Your task to perform on an android device: What's a good restaurant in Los Angeles? Image 0: 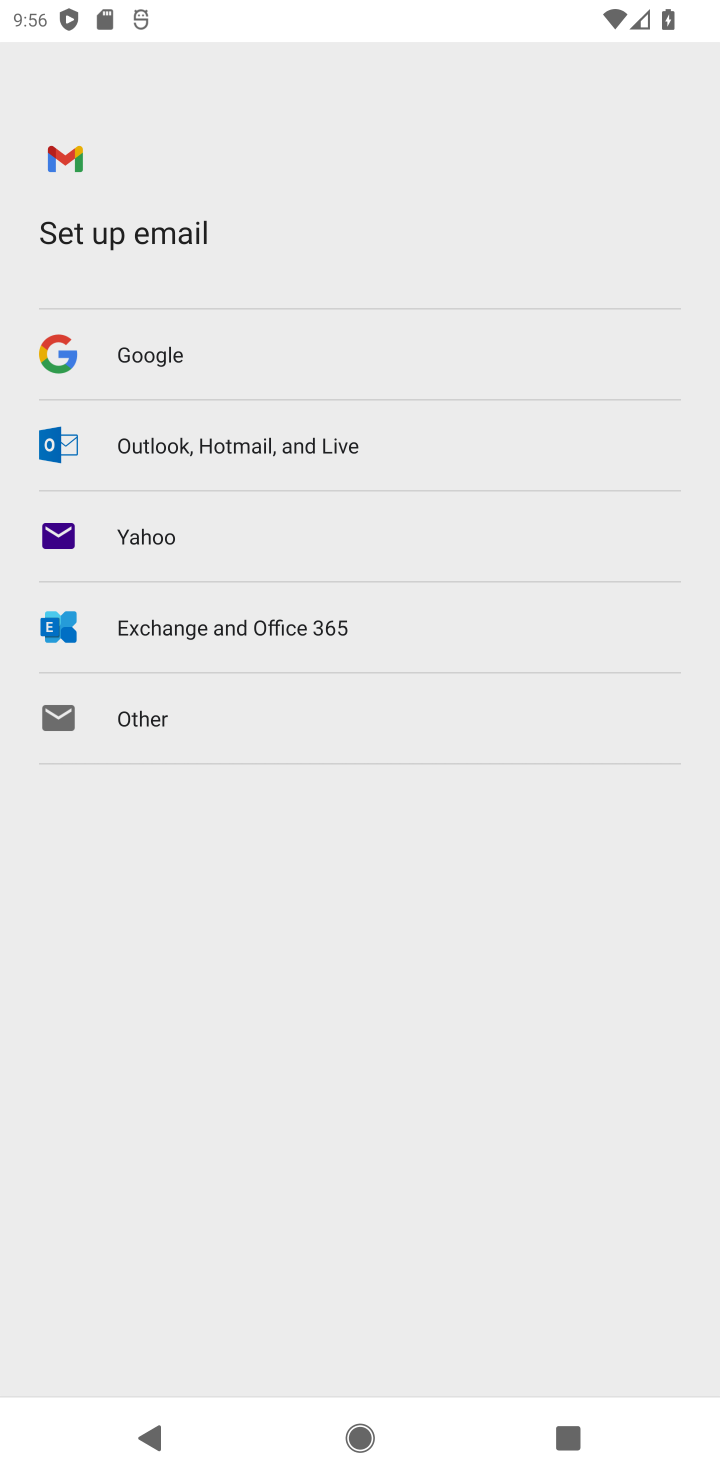
Step 0: press home button
Your task to perform on an android device: What's a good restaurant in Los Angeles? Image 1: 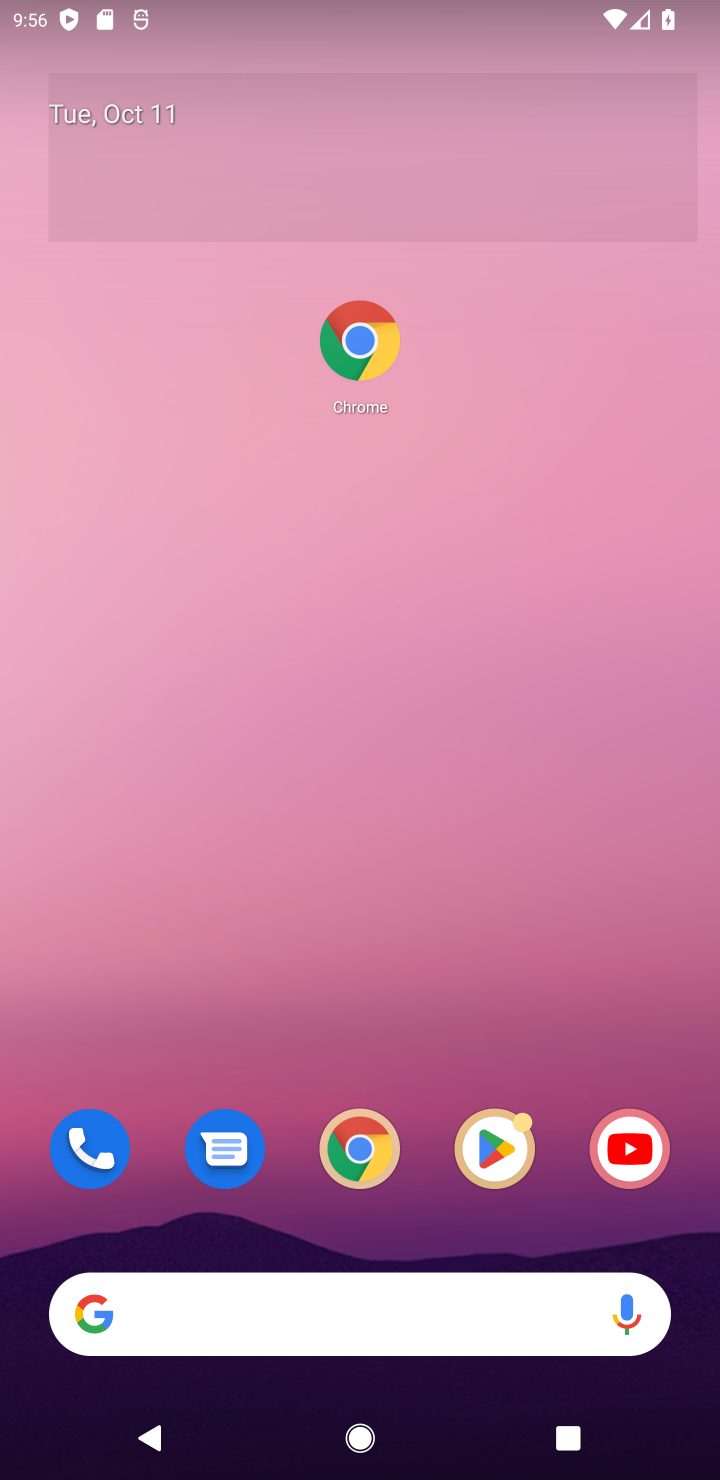
Step 1: drag from (423, 1070) to (387, 330)
Your task to perform on an android device: What's a good restaurant in Los Angeles? Image 2: 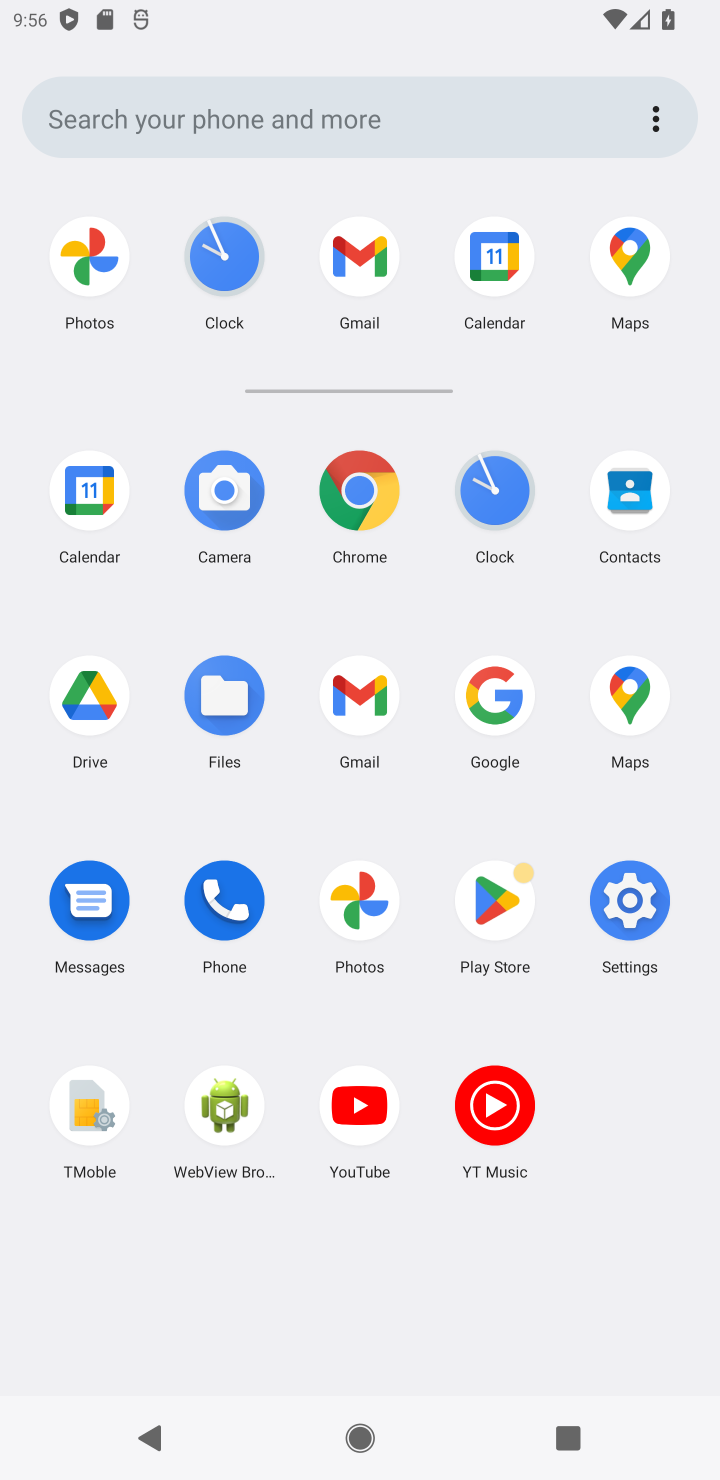
Step 2: click (369, 496)
Your task to perform on an android device: What's a good restaurant in Los Angeles? Image 3: 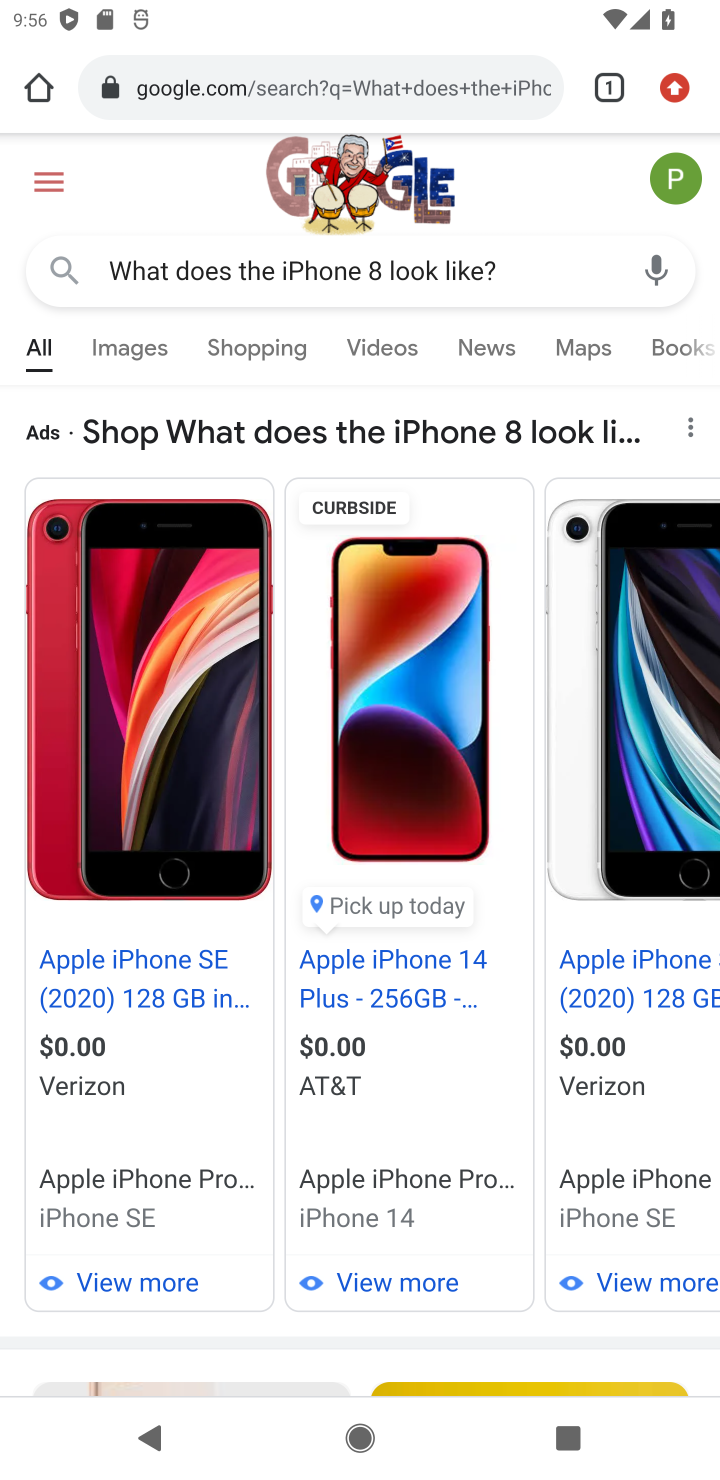
Step 3: click (521, 78)
Your task to perform on an android device: What's a good restaurant in Los Angeles? Image 4: 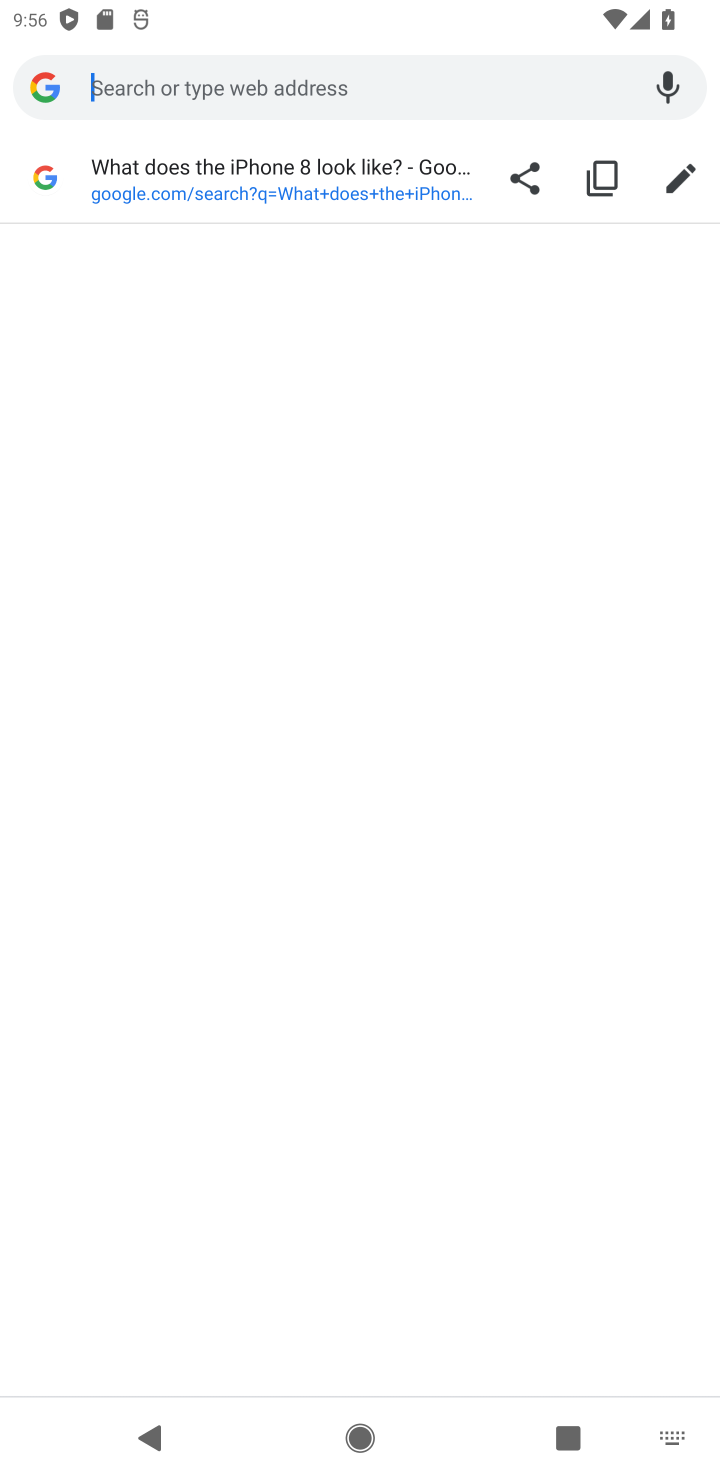
Step 4: click (521, 83)
Your task to perform on an android device: What's a good restaurant in Los Angeles? Image 5: 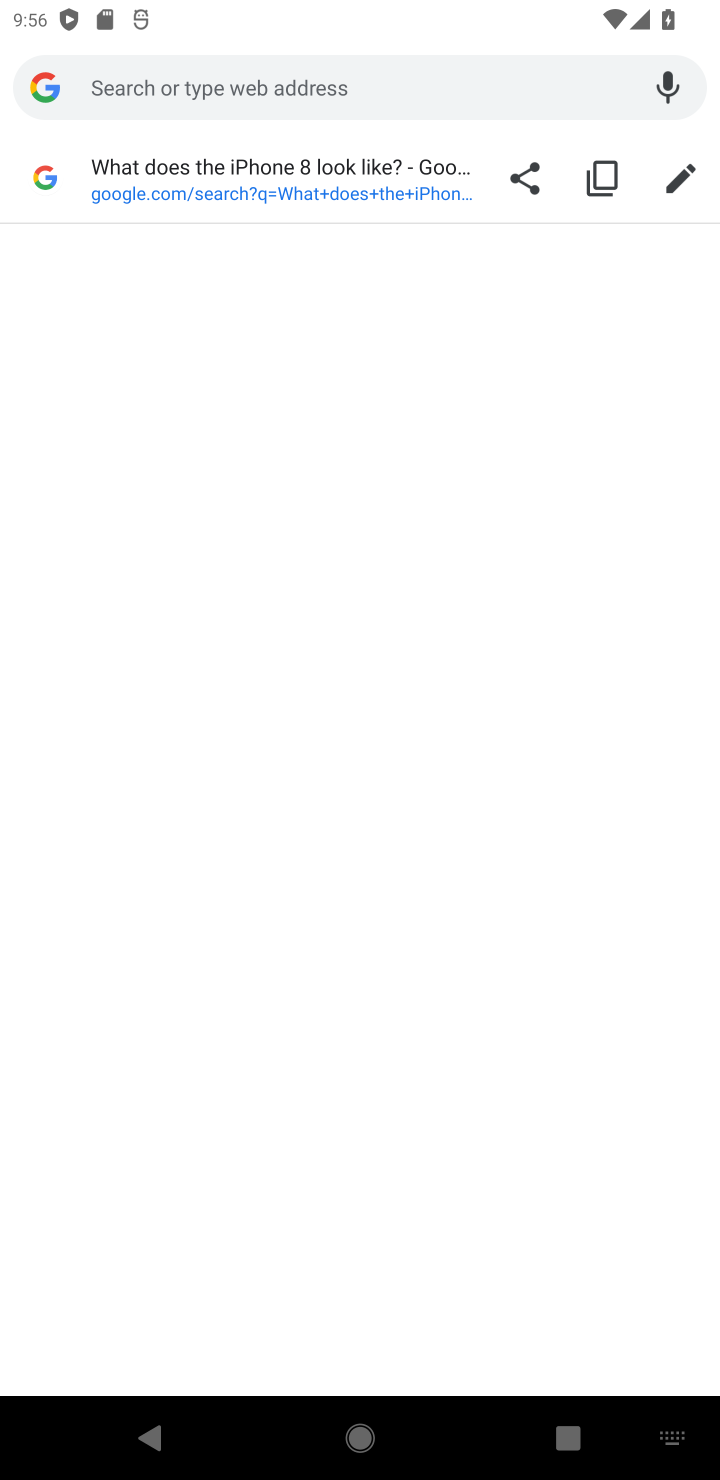
Step 5: type "What's a good restaurant in Los Angeles?"
Your task to perform on an android device: What's a good restaurant in Los Angeles? Image 6: 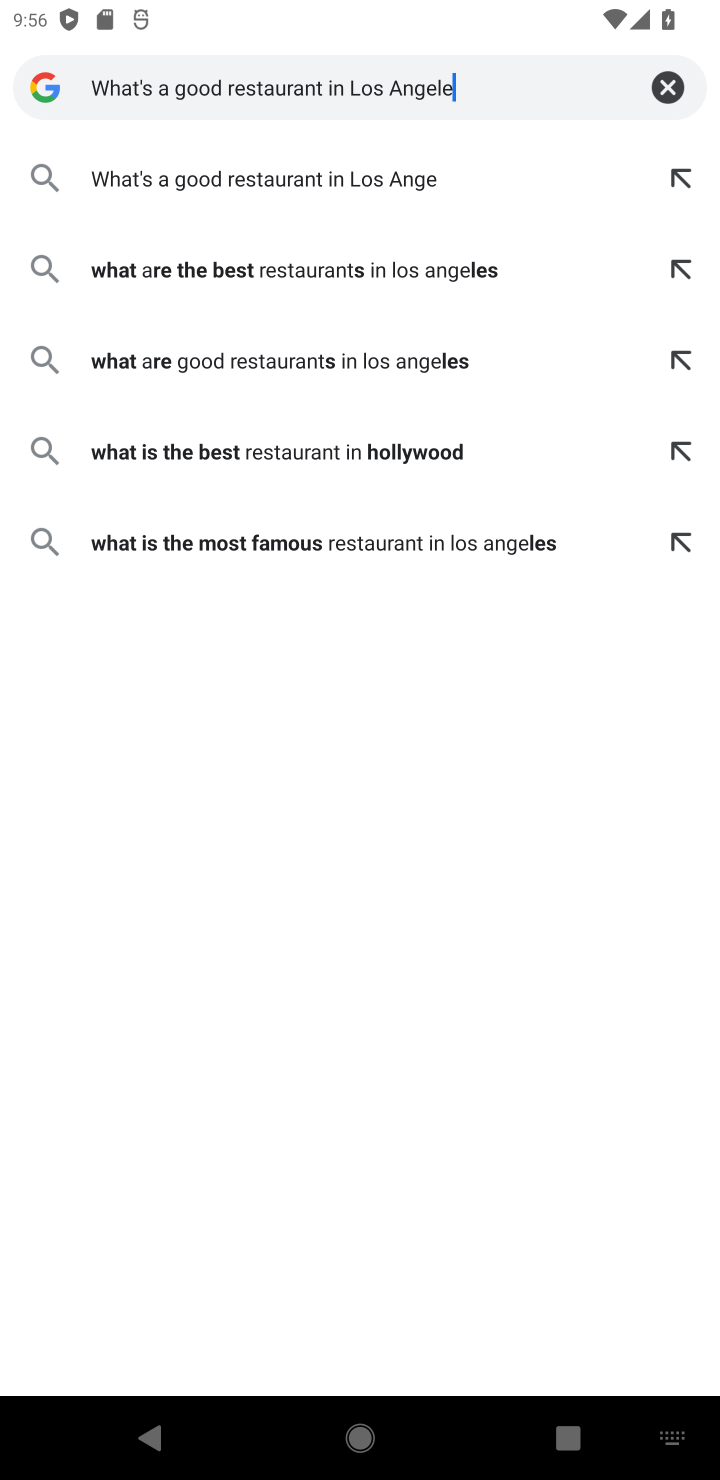
Step 6: press enter
Your task to perform on an android device: What's a good restaurant in Los Angeles? Image 7: 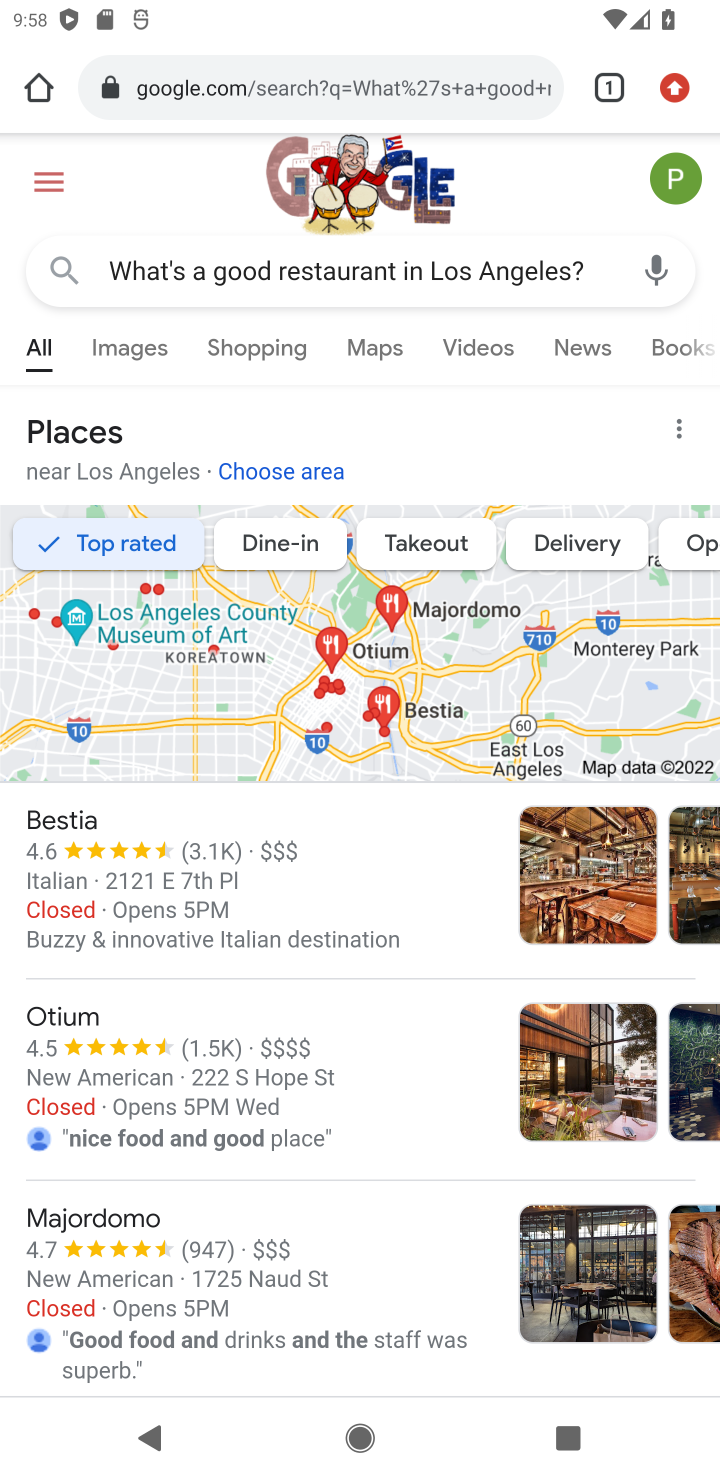
Step 7: task complete